Your task to perform on an android device: What's on my calendar today? Image 0: 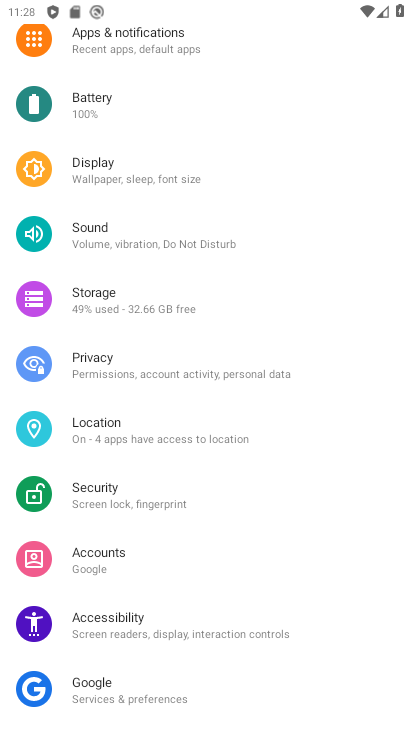
Step 0: press home button
Your task to perform on an android device: What's on my calendar today? Image 1: 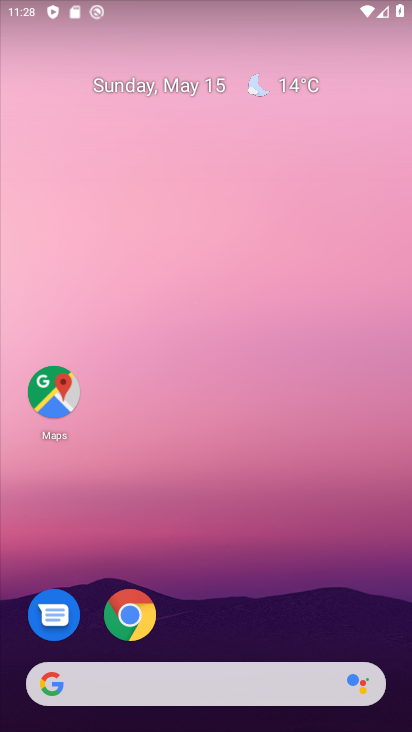
Step 1: drag from (369, 538) to (394, 98)
Your task to perform on an android device: What's on my calendar today? Image 2: 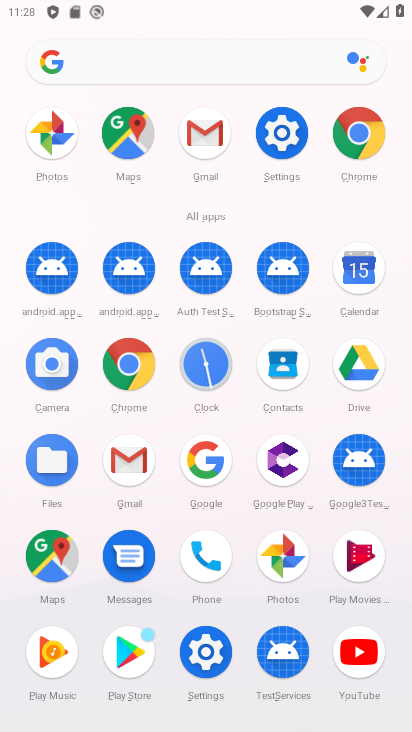
Step 2: click (369, 290)
Your task to perform on an android device: What's on my calendar today? Image 3: 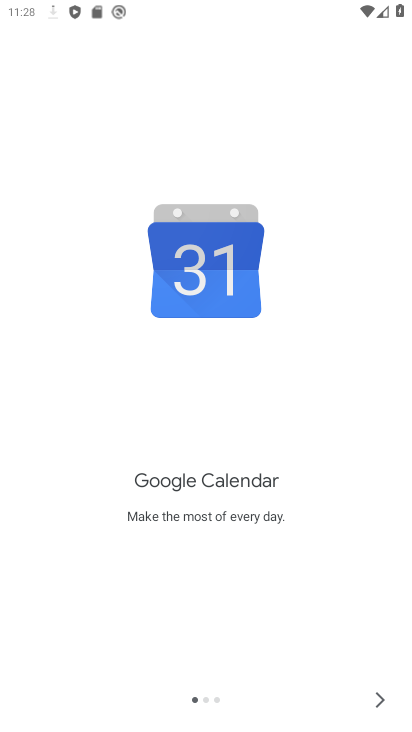
Step 3: click (387, 692)
Your task to perform on an android device: What's on my calendar today? Image 4: 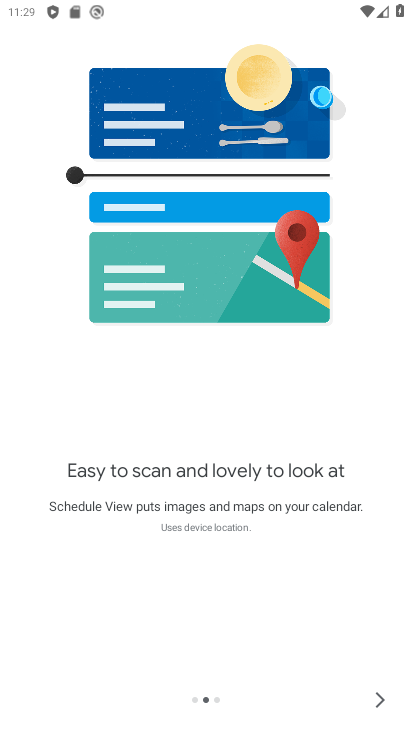
Step 4: click (387, 691)
Your task to perform on an android device: What's on my calendar today? Image 5: 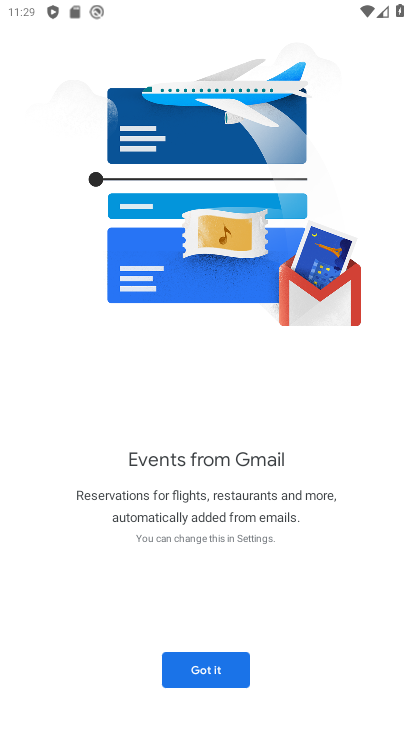
Step 5: click (228, 685)
Your task to perform on an android device: What's on my calendar today? Image 6: 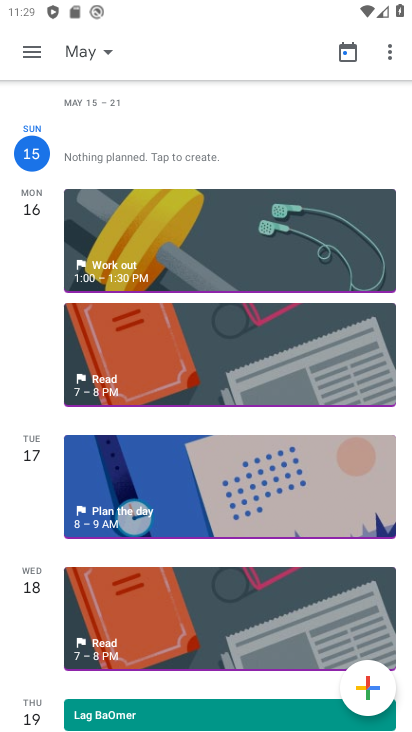
Step 6: click (91, 48)
Your task to perform on an android device: What's on my calendar today? Image 7: 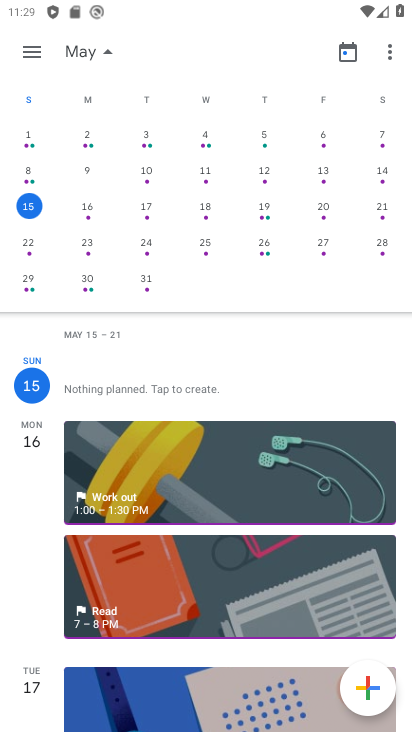
Step 7: task complete